Your task to perform on an android device: clear history in the chrome app Image 0: 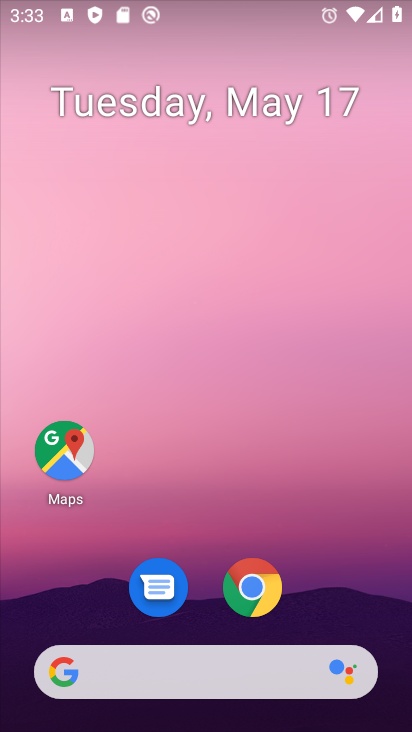
Step 0: click (254, 206)
Your task to perform on an android device: clear history in the chrome app Image 1: 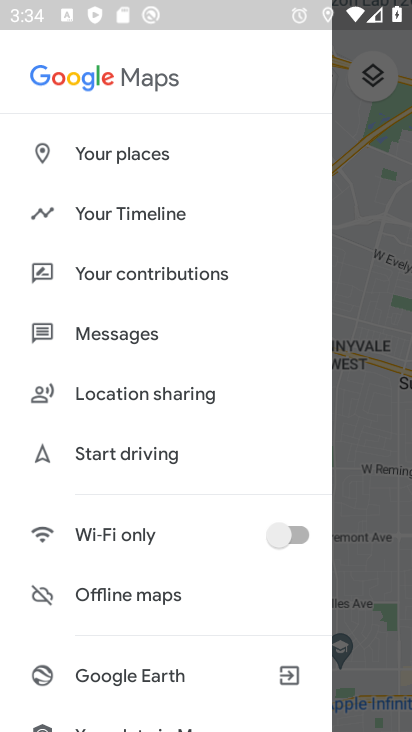
Step 1: drag from (200, 630) to (206, 208)
Your task to perform on an android device: clear history in the chrome app Image 2: 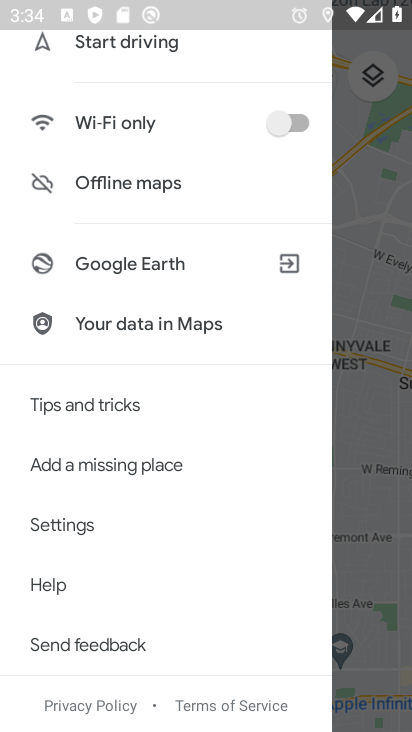
Step 2: press home button
Your task to perform on an android device: clear history in the chrome app Image 3: 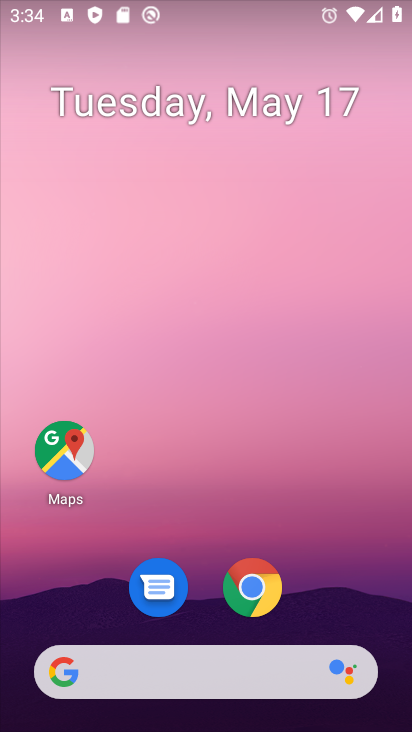
Step 3: click (247, 584)
Your task to perform on an android device: clear history in the chrome app Image 4: 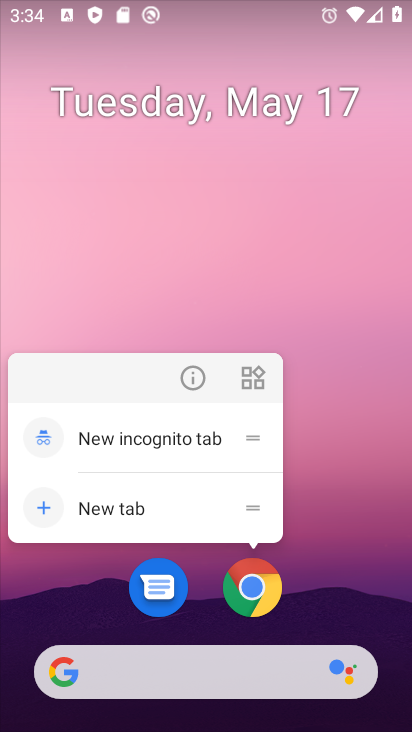
Step 4: click (176, 375)
Your task to perform on an android device: clear history in the chrome app Image 5: 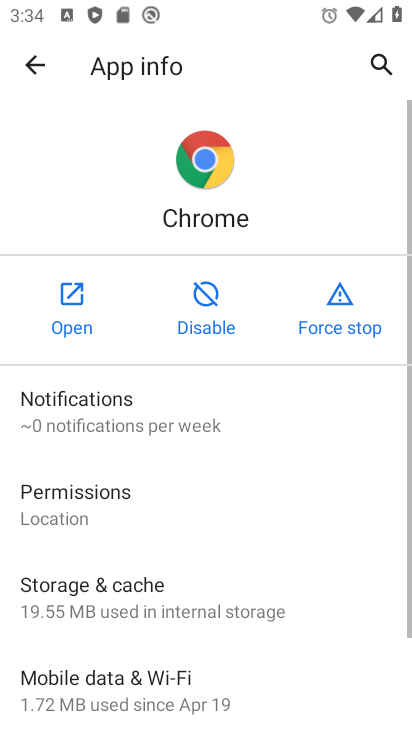
Step 5: click (68, 281)
Your task to perform on an android device: clear history in the chrome app Image 6: 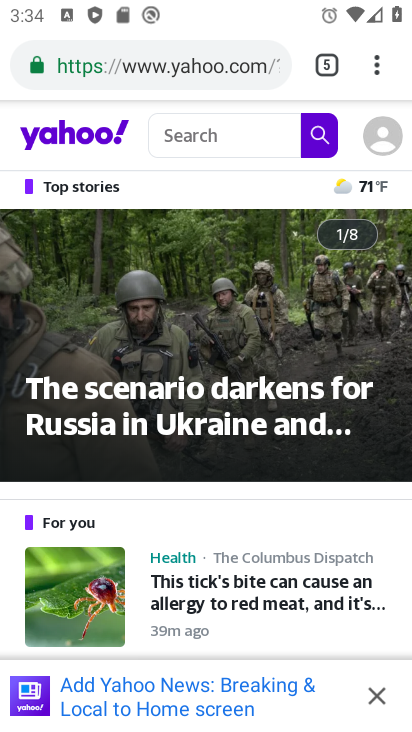
Step 6: click (369, 66)
Your task to perform on an android device: clear history in the chrome app Image 7: 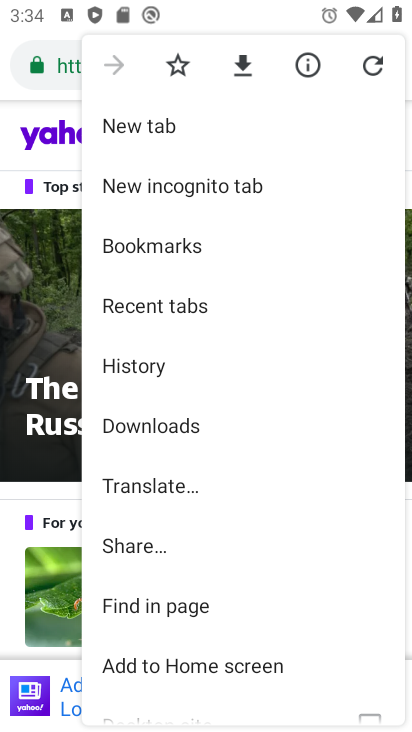
Step 7: click (169, 366)
Your task to perform on an android device: clear history in the chrome app Image 8: 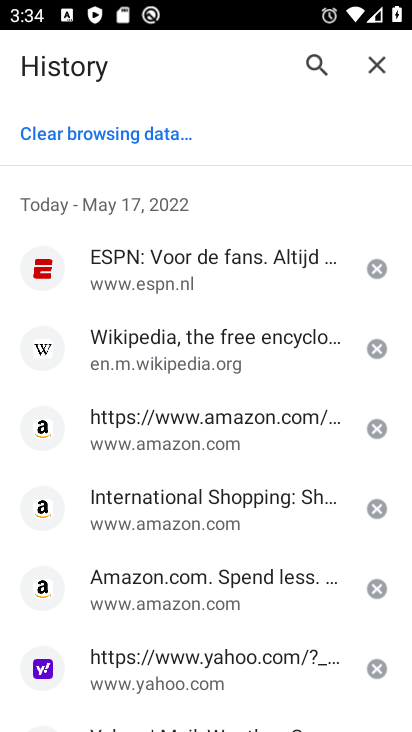
Step 8: click (91, 138)
Your task to perform on an android device: clear history in the chrome app Image 9: 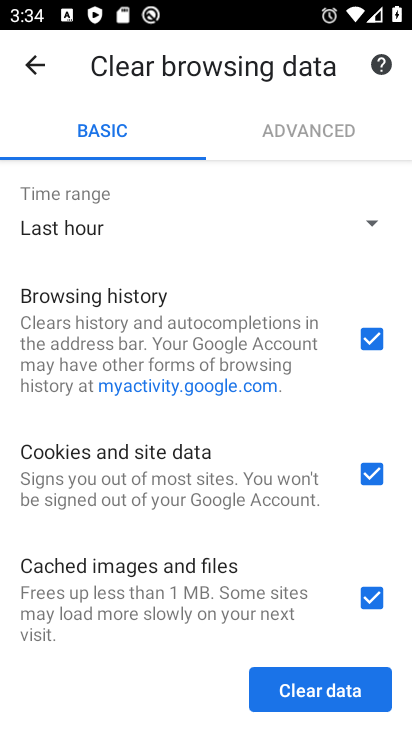
Step 9: click (325, 694)
Your task to perform on an android device: clear history in the chrome app Image 10: 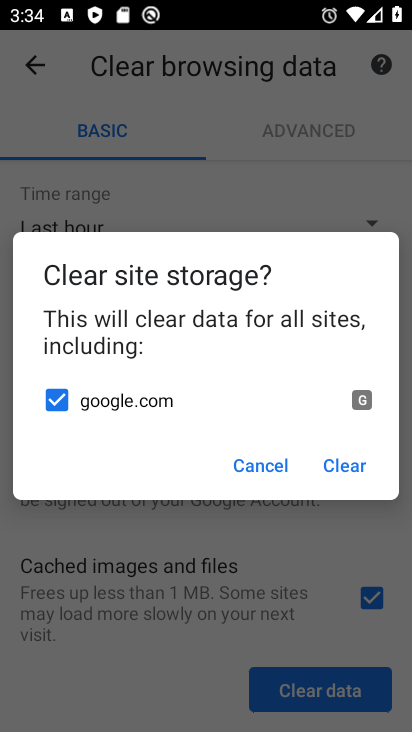
Step 10: click (332, 458)
Your task to perform on an android device: clear history in the chrome app Image 11: 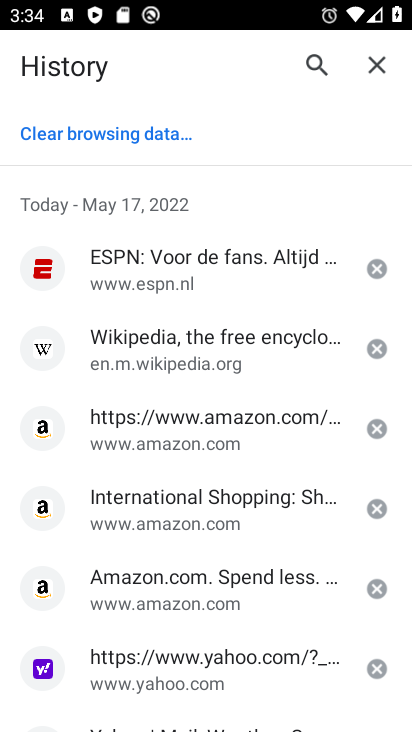
Step 11: drag from (216, 542) to (294, 298)
Your task to perform on an android device: clear history in the chrome app Image 12: 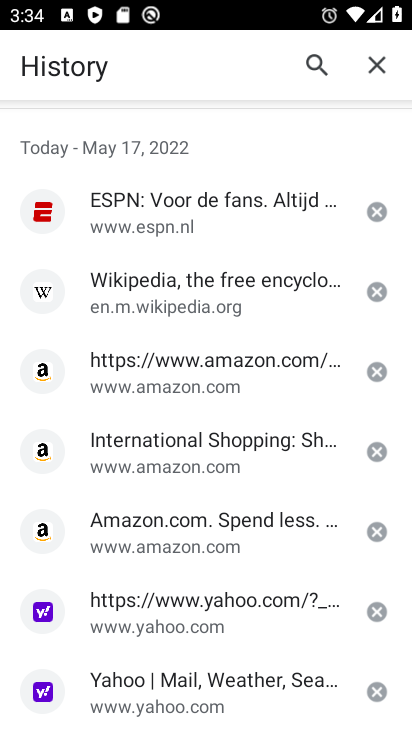
Step 12: drag from (274, 264) to (336, 582)
Your task to perform on an android device: clear history in the chrome app Image 13: 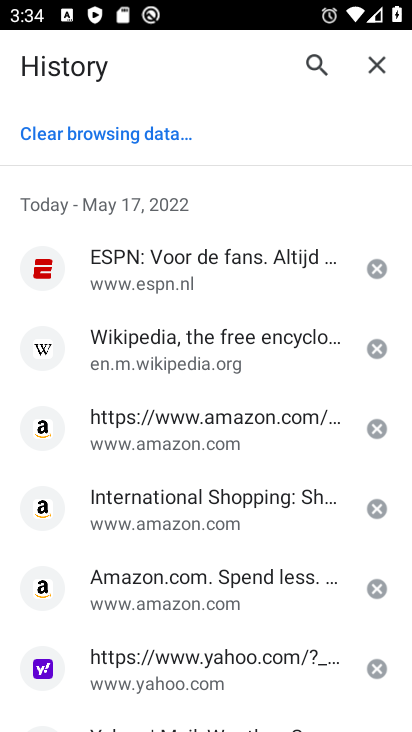
Step 13: click (120, 135)
Your task to perform on an android device: clear history in the chrome app Image 14: 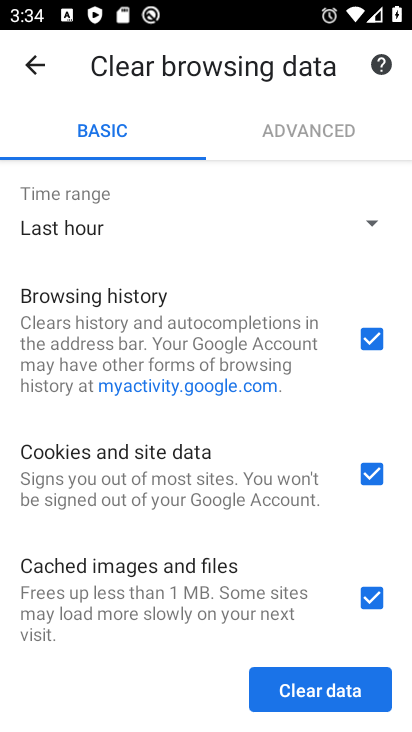
Step 14: click (340, 219)
Your task to perform on an android device: clear history in the chrome app Image 15: 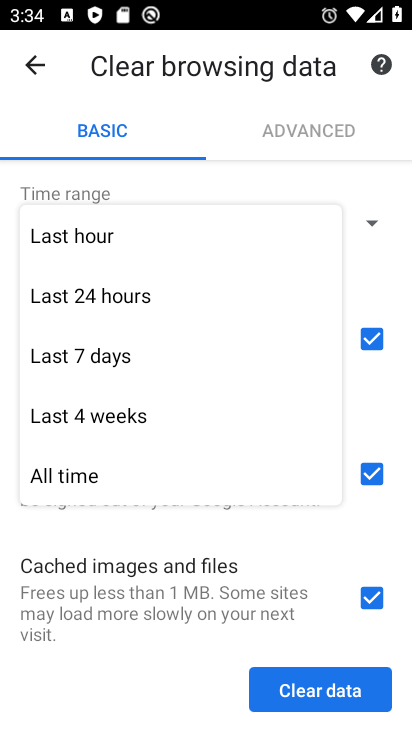
Step 15: click (96, 465)
Your task to perform on an android device: clear history in the chrome app Image 16: 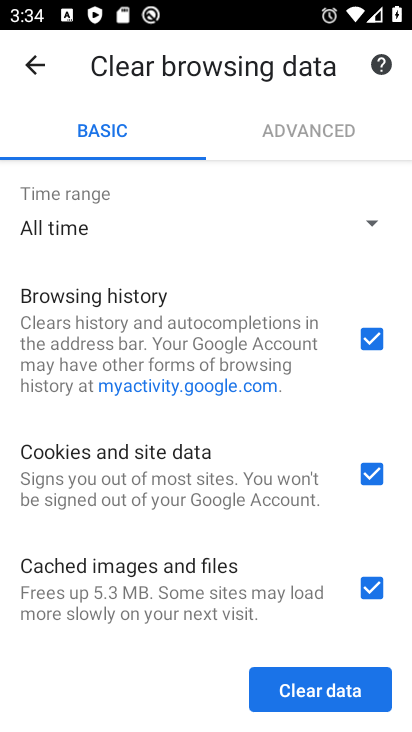
Step 16: click (325, 694)
Your task to perform on an android device: clear history in the chrome app Image 17: 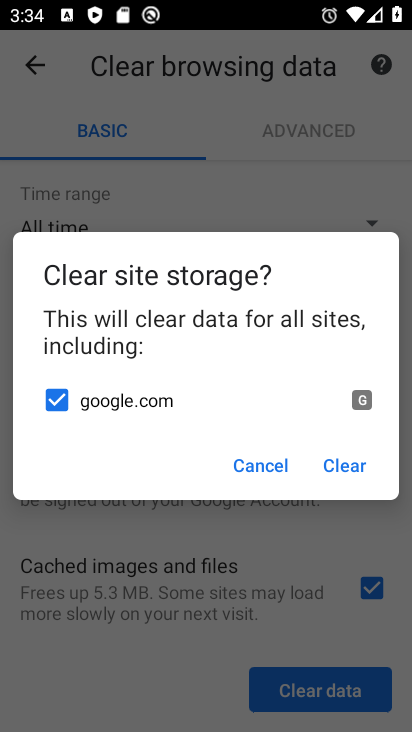
Step 17: click (340, 468)
Your task to perform on an android device: clear history in the chrome app Image 18: 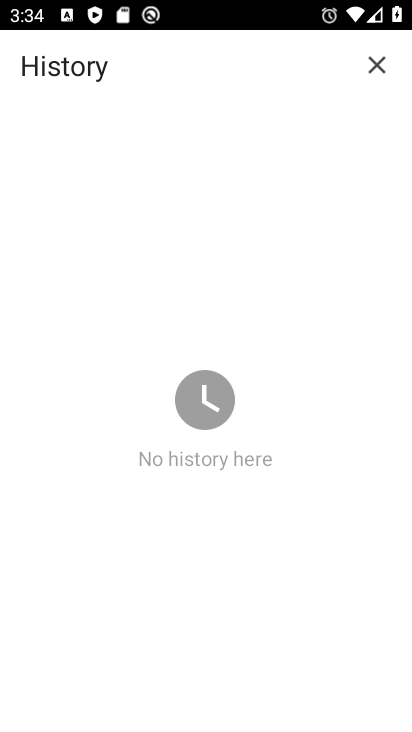
Step 18: task complete